Your task to perform on an android device: open app "Messenger Lite" Image 0: 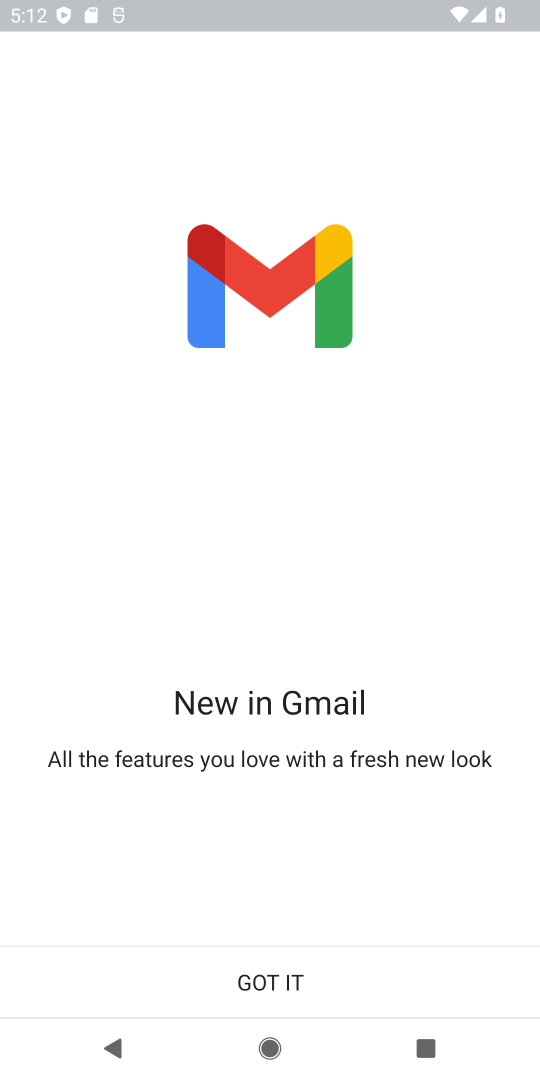
Step 0: press home button
Your task to perform on an android device: open app "Messenger Lite" Image 1: 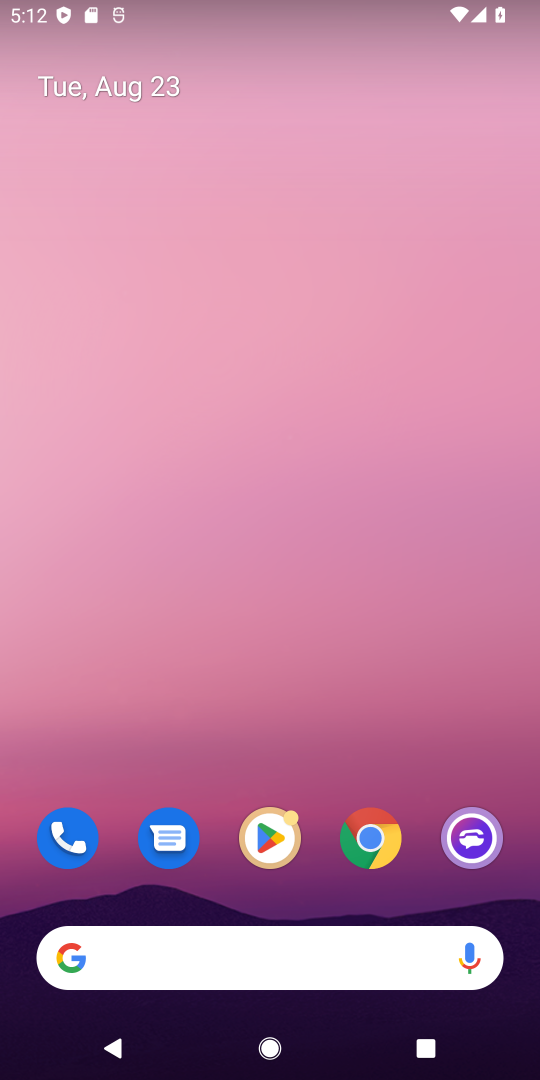
Step 1: drag from (309, 798) to (306, 108)
Your task to perform on an android device: open app "Messenger Lite" Image 2: 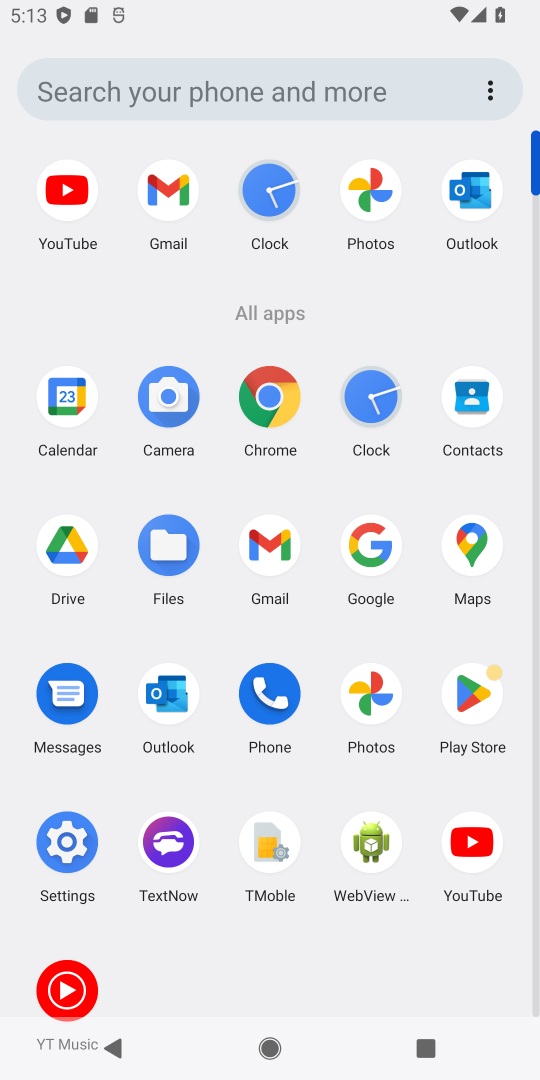
Step 2: click (471, 698)
Your task to perform on an android device: open app "Messenger Lite" Image 3: 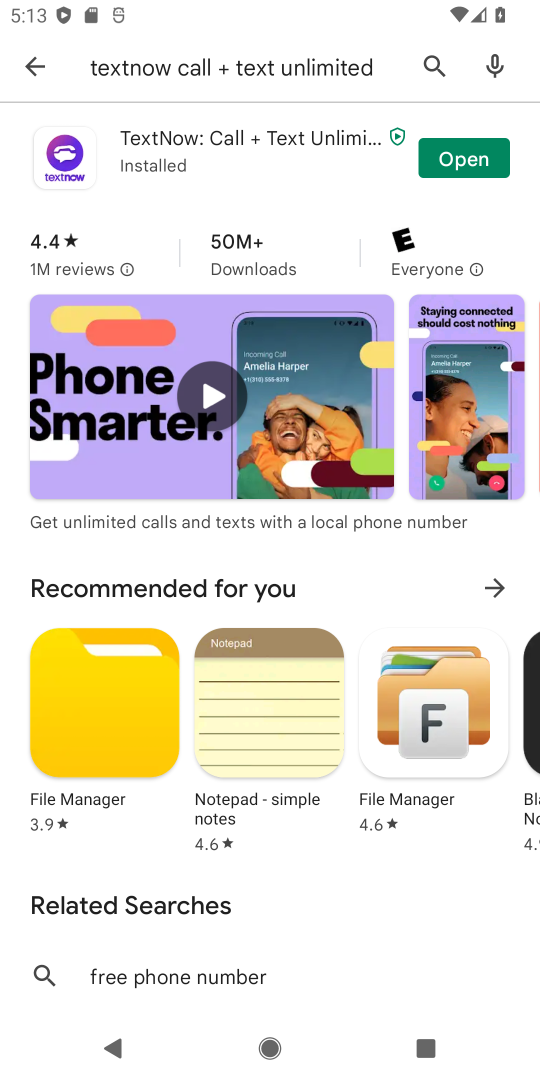
Step 3: click (432, 59)
Your task to perform on an android device: open app "Messenger Lite" Image 4: 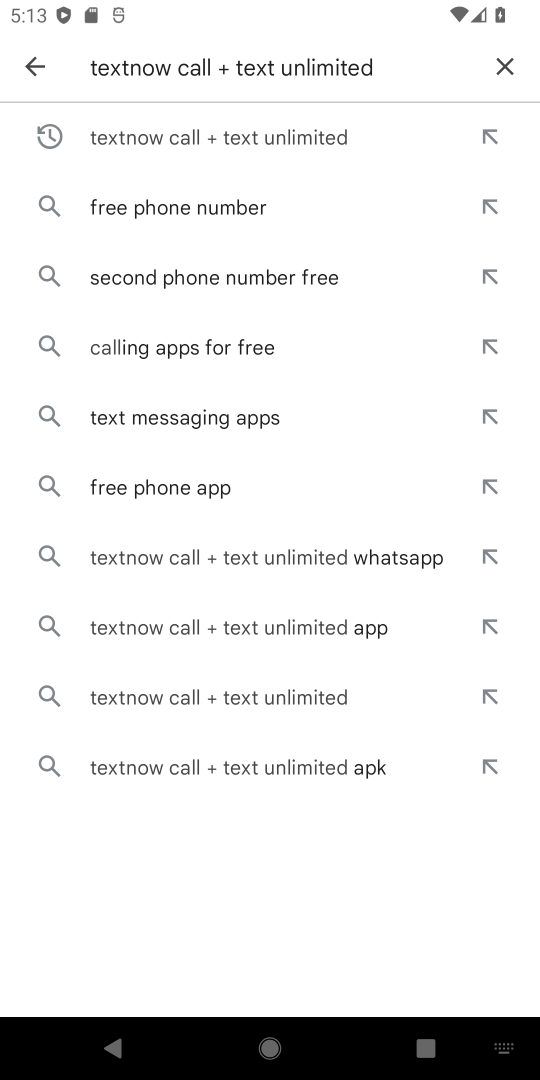
Step 4: click (503, 59)
Your task to perform on an android device: open app "Messenger Lite" Image 5: 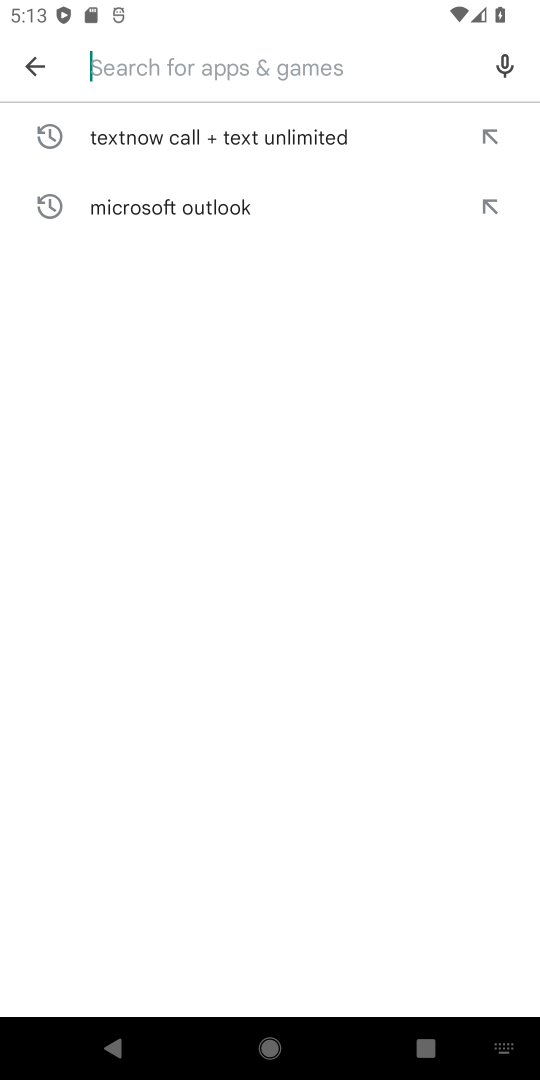
Step 5: type "Messenger Lite"
Your task to perform on an android device: open app "Messenger Lite" Image 6: 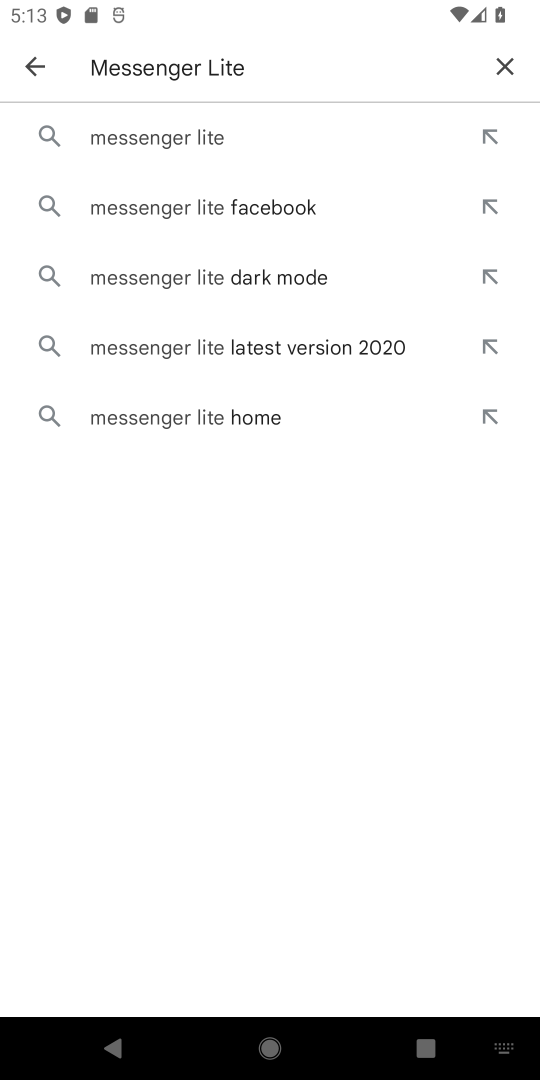
Step 6: click (143, 141)
Your task to perform on an android device: open app "Messenger Lite" Image 7: 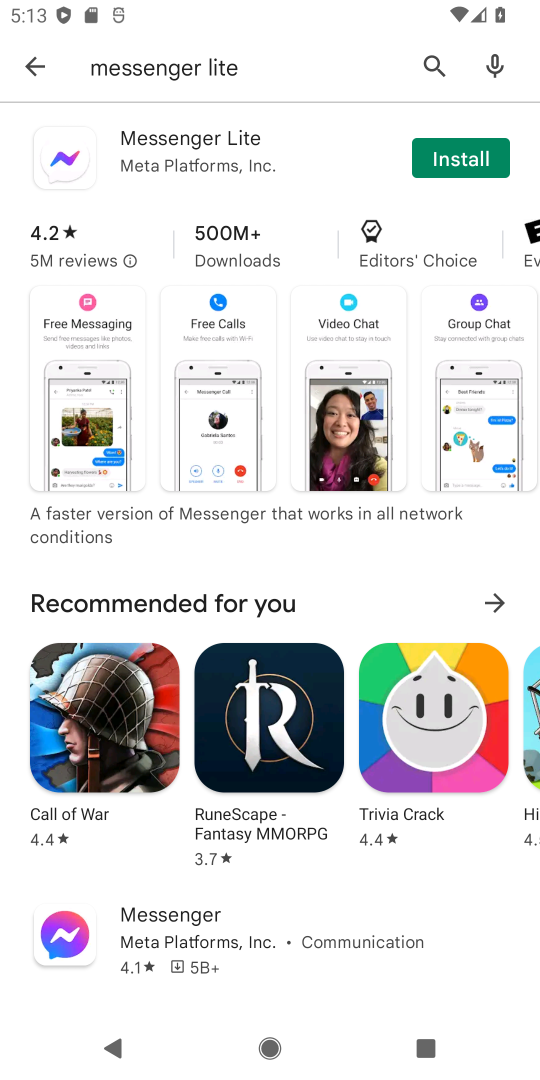
Step 7: click (476, 154)
Your task to perform on an android device: open app "Messenger Lite" Image 8: 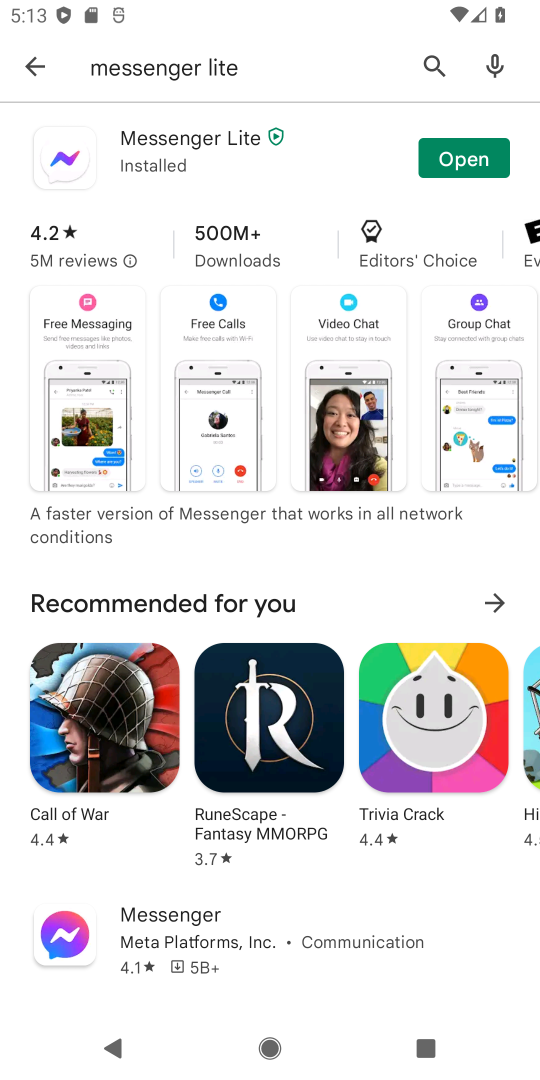
Step 8: click (471, 158)
Your task to perform on an android device: open app "Messenger Lite" Image 9: 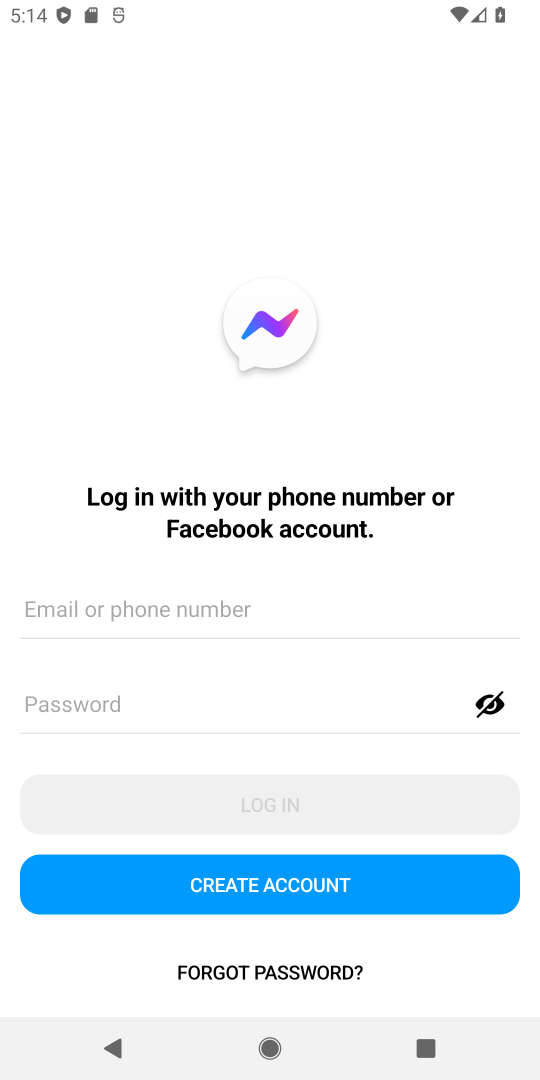
Step 9: task complete